Your task to perform on an android device: open chrome and create a bookmark for the current page Image 0: 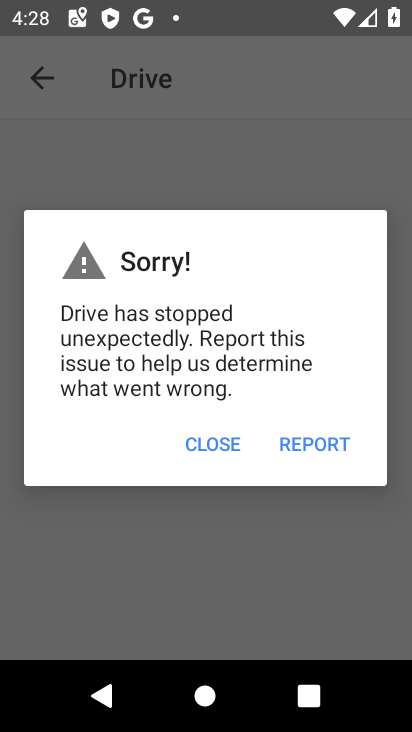
Step 0: press back button
Your task to perform on an android device: open chrome and create a bookmark for the current page Image 1: 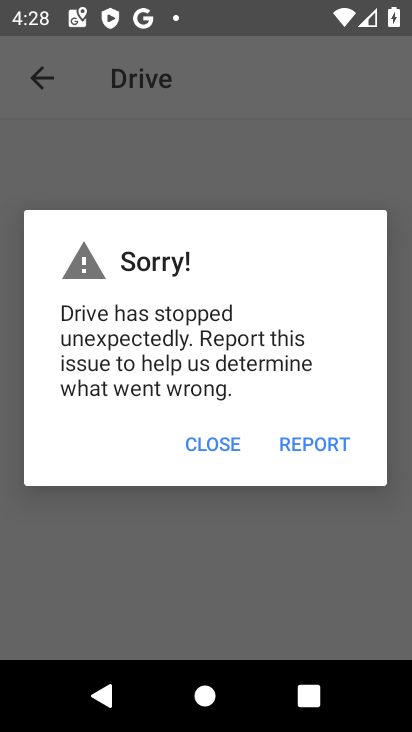
Step 1: press home button
Your task to perform on an android device: open chrome and create a bookmark for the current page Image 2: 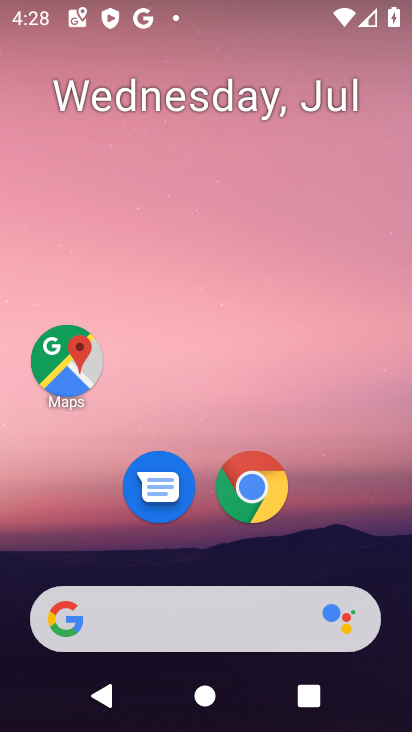
Step 2: click (256, 475)
Your task to perform on an android device: open chrome and create a bookmark for the current page Image 3: 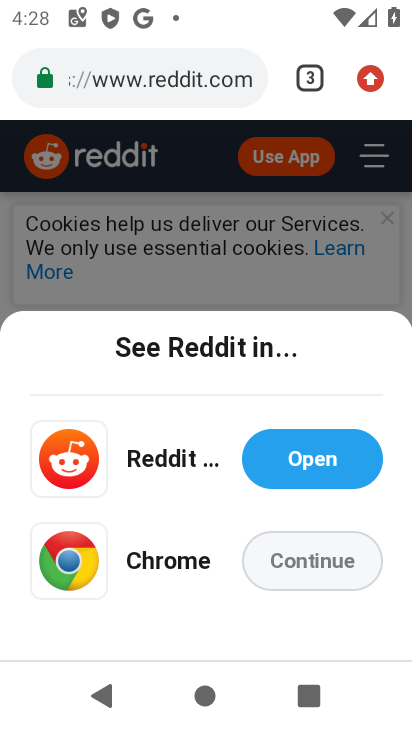
Step 3: task complete